Your task to perform on an android device: Open Wikipedia Image 0: 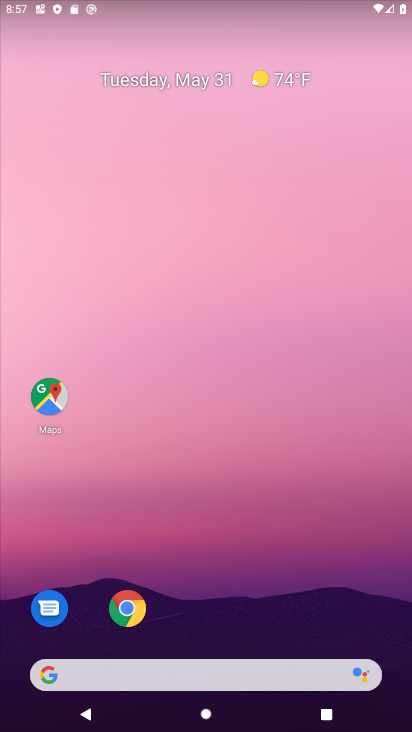
Step 0: click (145, 610)
Your task to perform on an android device: Open Wikipedia Image 1: 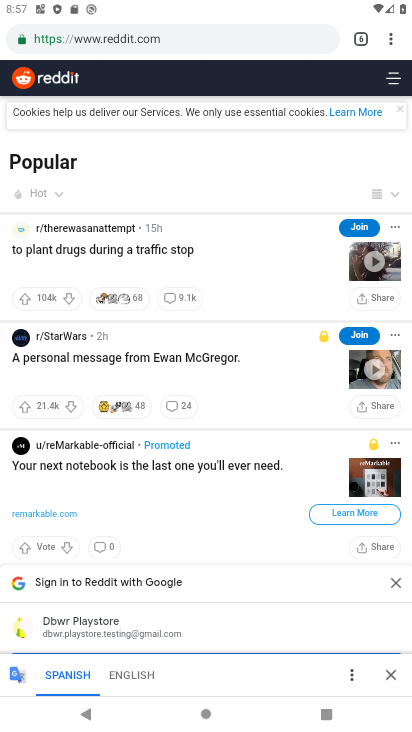
Step 1: click (352, 49)
Your task to perform on an android device: Open Wikipedia Image 2: 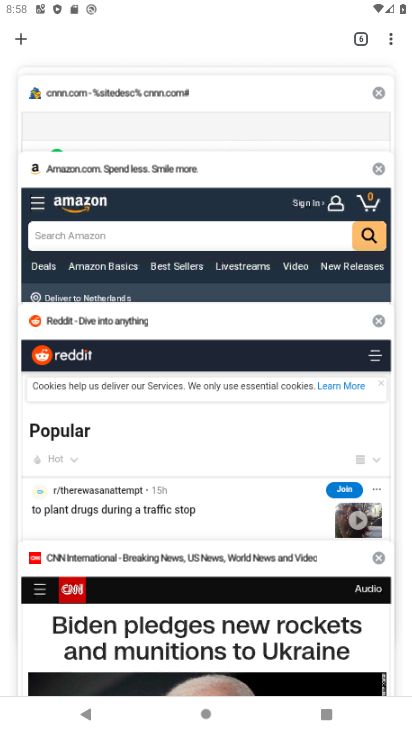
Step 2: click (22, 39)
Your task to perform on an android device: Open Wikipedia Image 3: 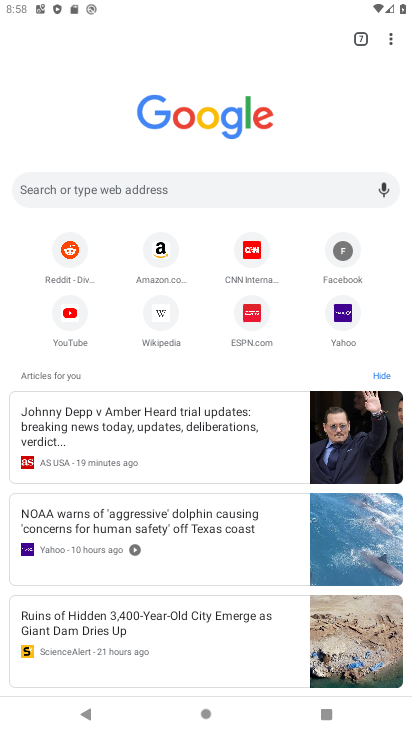
Step 3: click (169, 310)
Your task to perform on an android device: Open Wikipedia Image 4: 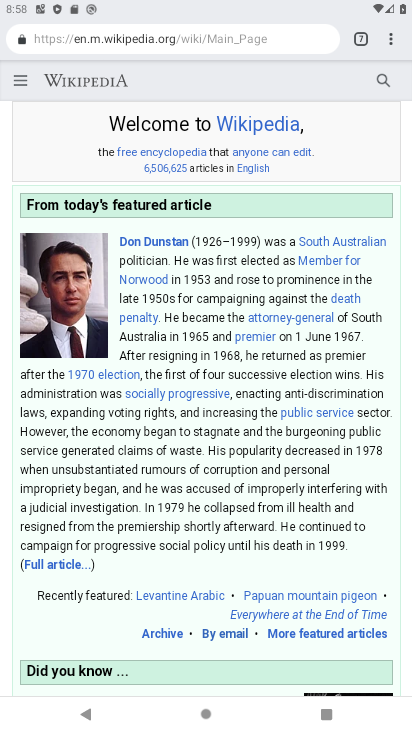
Step 4: task complete